Your task to perform on an android device: Go to Android settings Image 0: 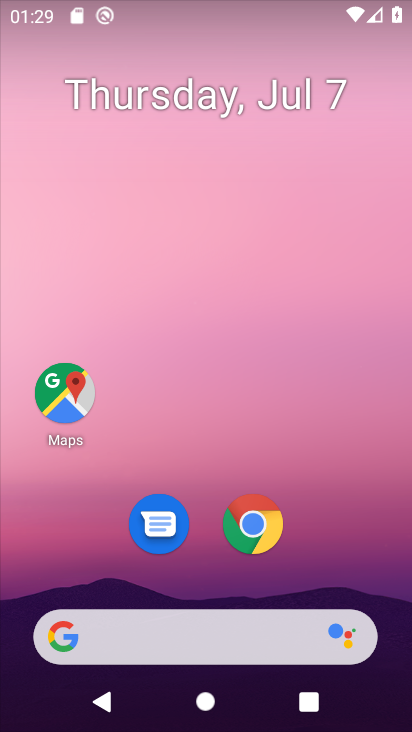
Step 0: drag from (316, 479) to (336, 31)
Your task to perform on an android device: Go to Android settings Image 1: 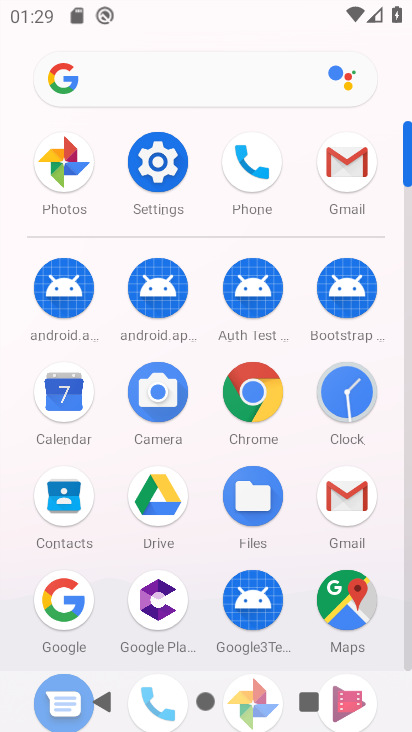
Step 1: click (154, 167)
Your task to perform on an android device: Go to Android settings Image 2: 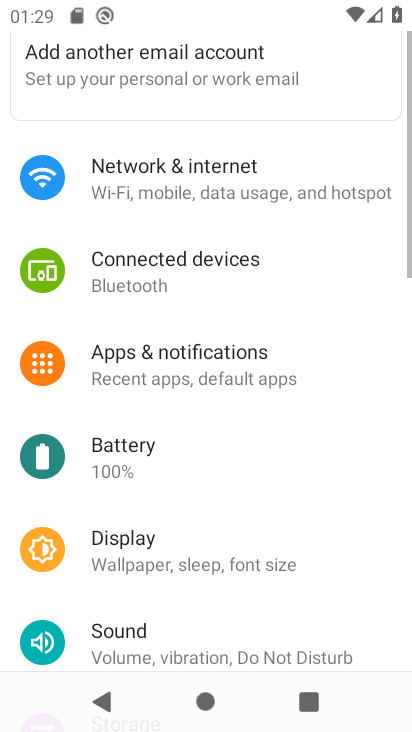
Step 2: drag from (206, 495) to (208, 0)
Your task to perform on an android device: Go to Android settings Image 3: 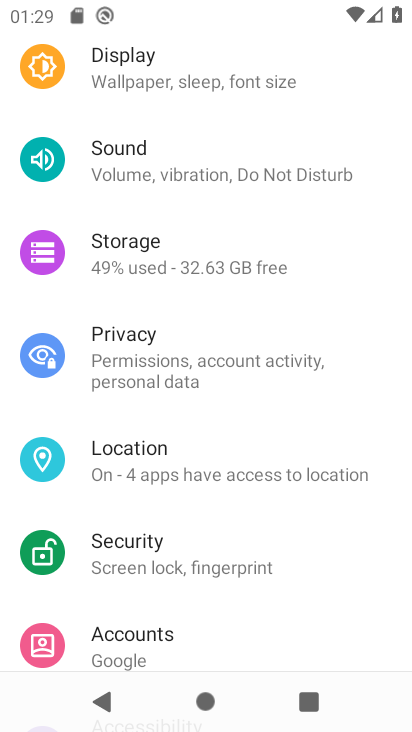
Step 3: drag from (224, 424) to (256, 13)
Your task to perform on an android device: Go to Android settings Image 4: 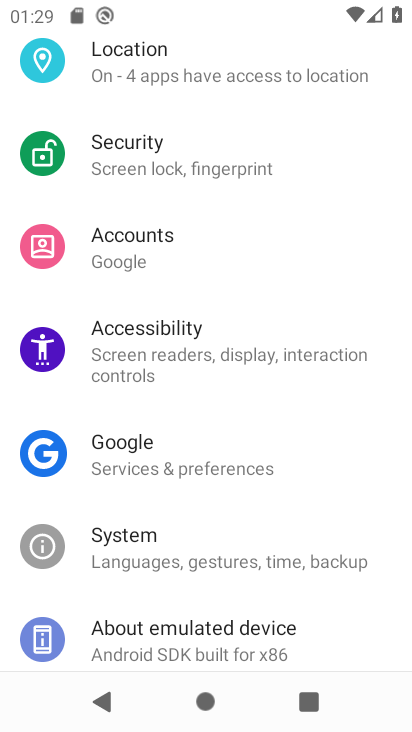
Step 4: drag from (237, 385) to (242, 134)
Your task to perform on an android device: Go to Android settings Image 5: 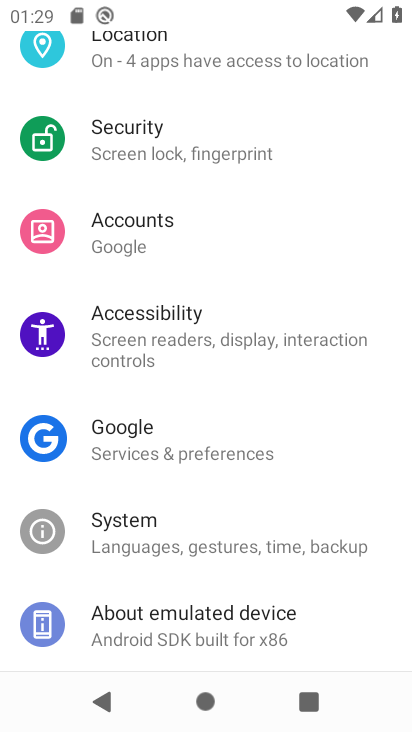
Step 5: click (229, 632)
Your task to perform on an android device: Go to Android settings Image 6: 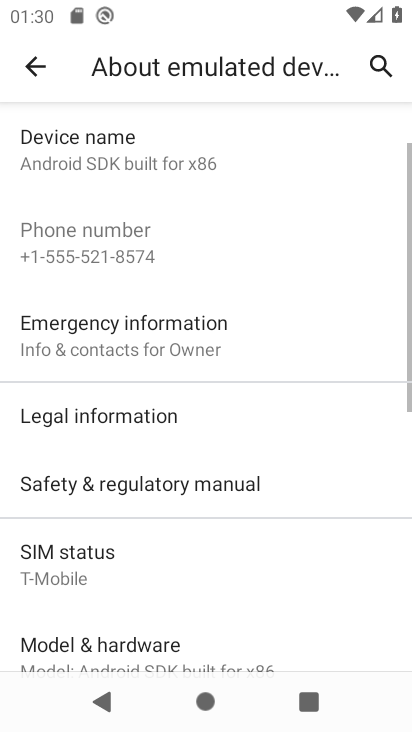
Step 6: task complete